Your task to perform on an android device: uninstall "Expedia: Hotels, Flights & Car" Image 0: 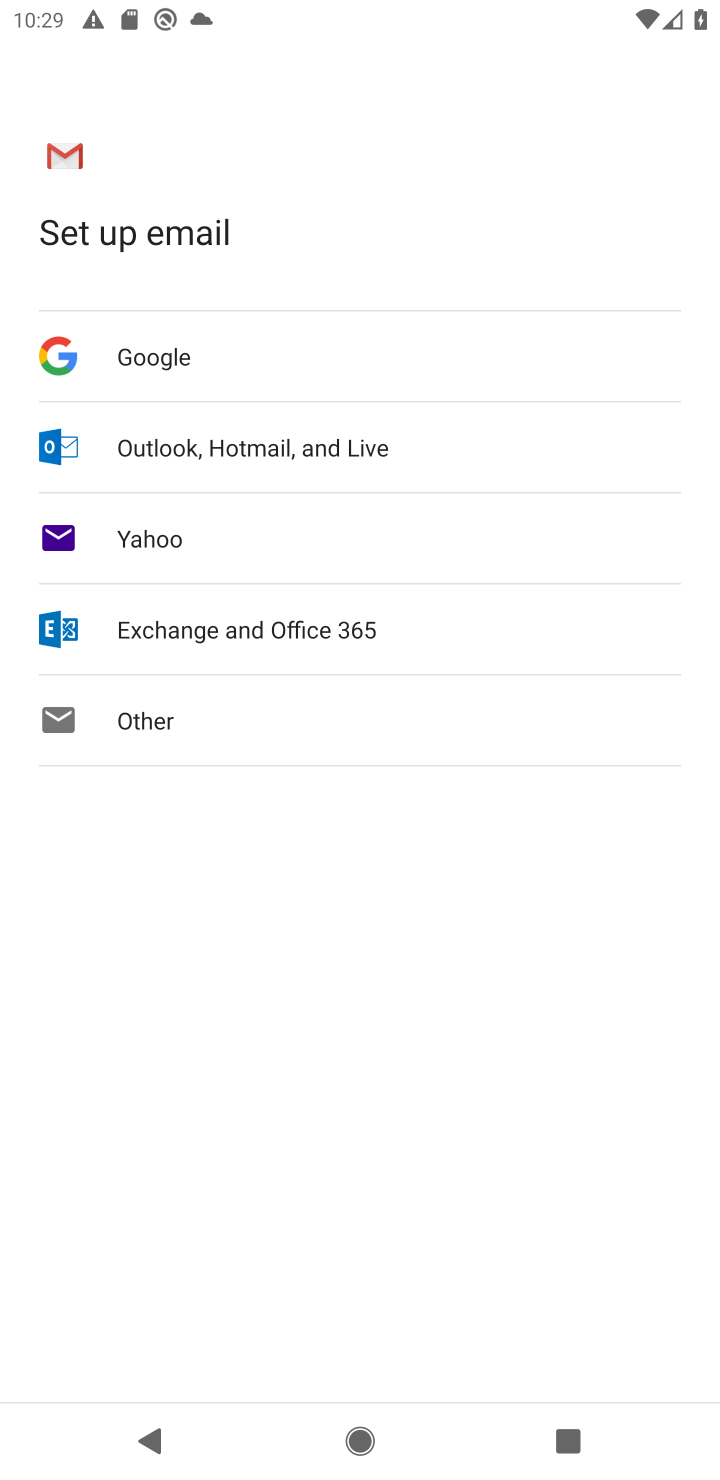
Step 0: press home button
Your task to perform on an android device: uninstall "Expedia: Hotels, Flights & Car" Image 1: 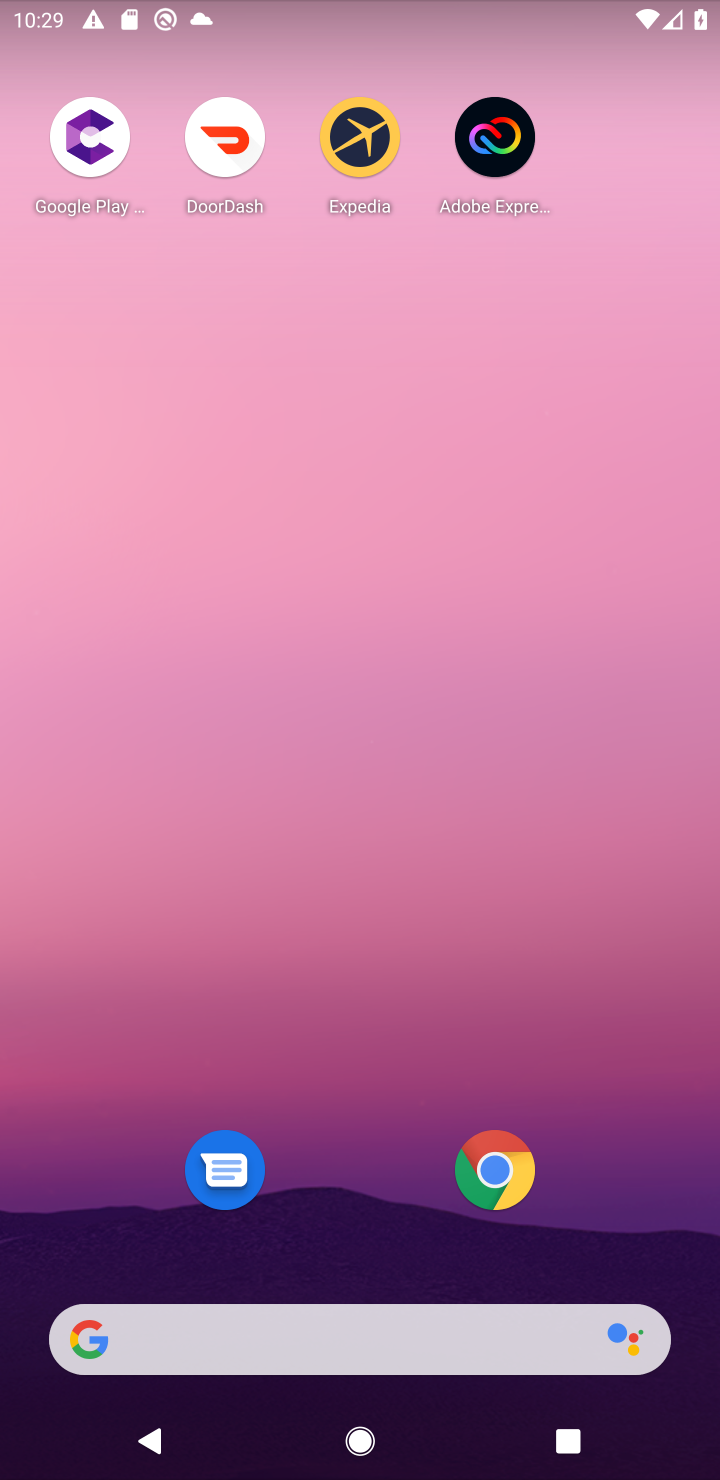
Step 1: drag from (321, 1228) to (379, 1)
Your task to perform on an android device: uninstall "Expedia: Hotels, Flights & Car" Image 2: 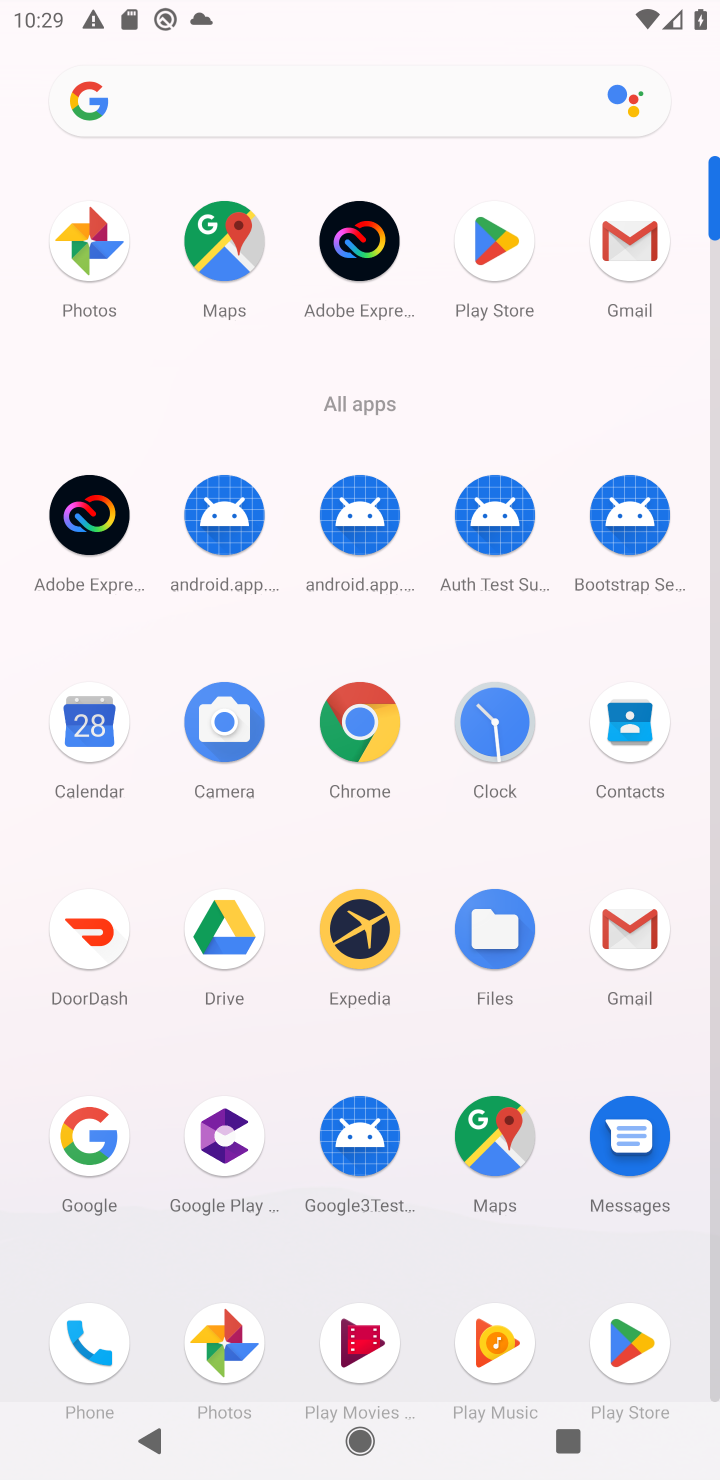
Step 2: click (632, 1329)
Your task to perform on an android device: uninstall "Expedia: Hotels, Flights & Car" Image 3: 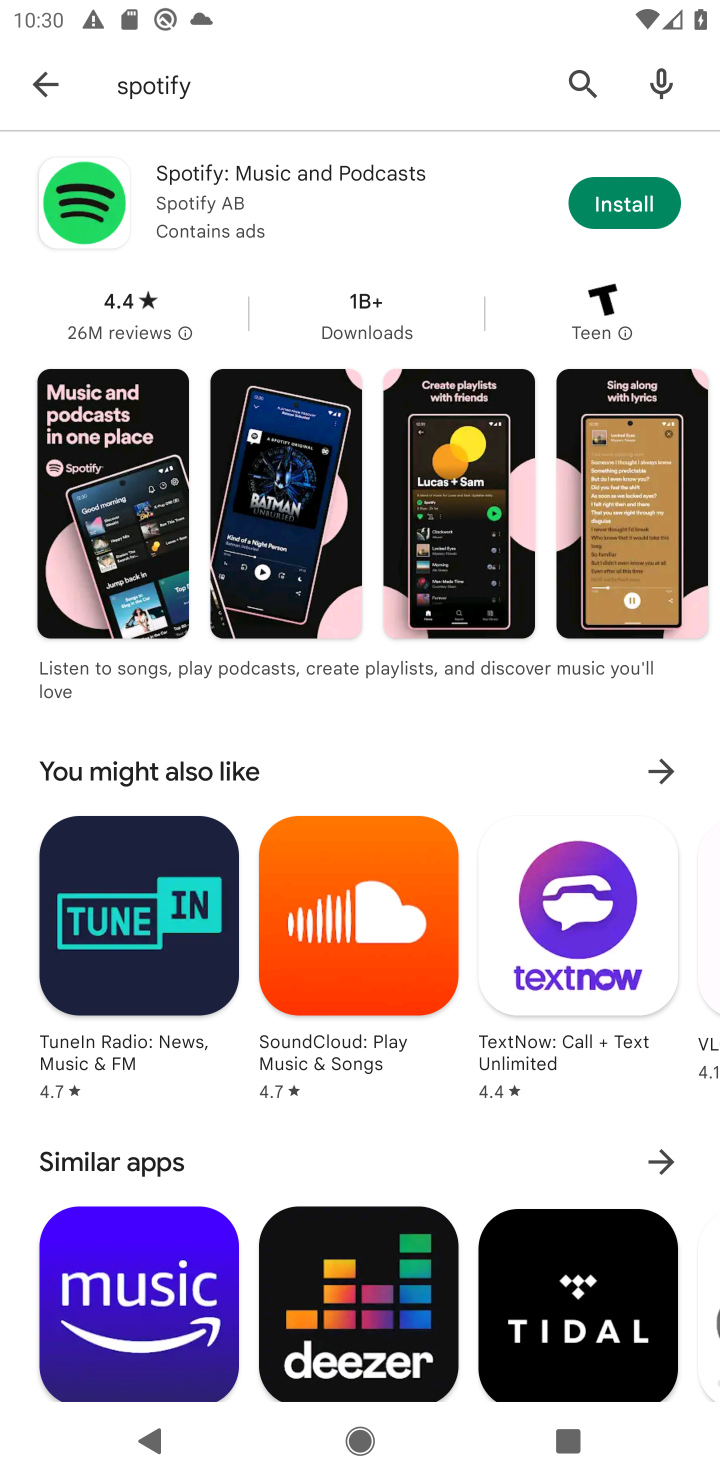
Step 3: click (199, 93)
Your task to perform on an android device: uninstall "Expedia: Hotels, Flights & Car" Image 4: 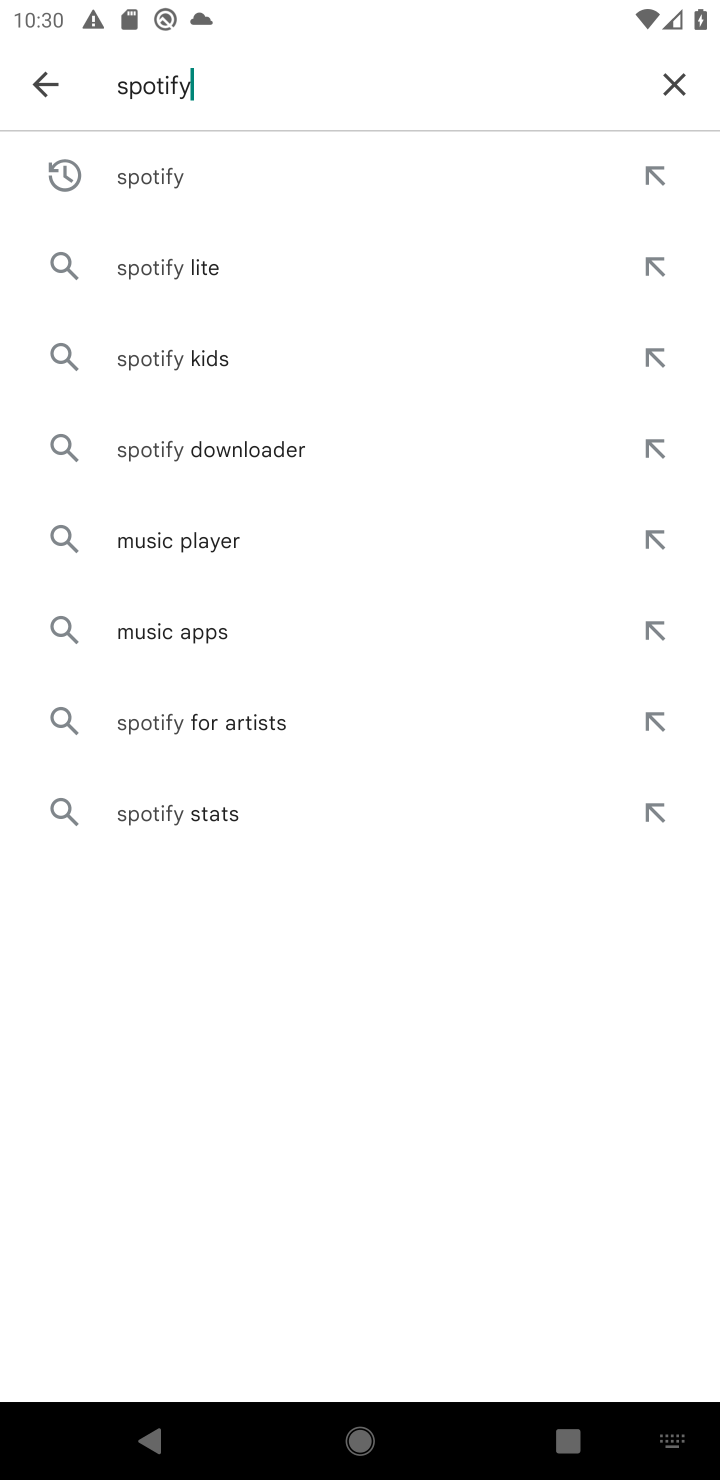
Step 4: click (673, 83)
Your task to perform on an android device: uninstall "Expedia: Hotels, Flights & Car" Image 5: 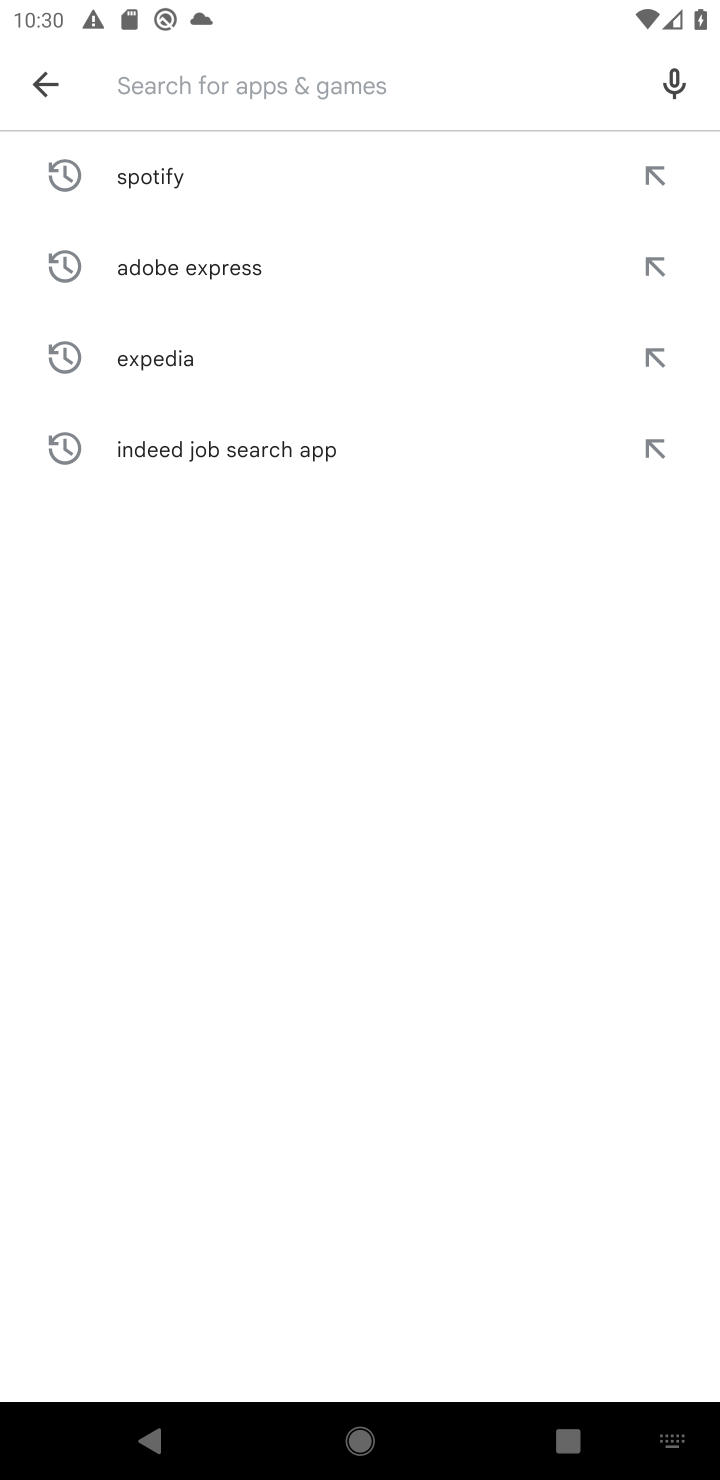
Step 5: type "Expedia"
Your task to perform on an android device: uninstall "Expedia: Hotels, Flights & Car" Image 6: 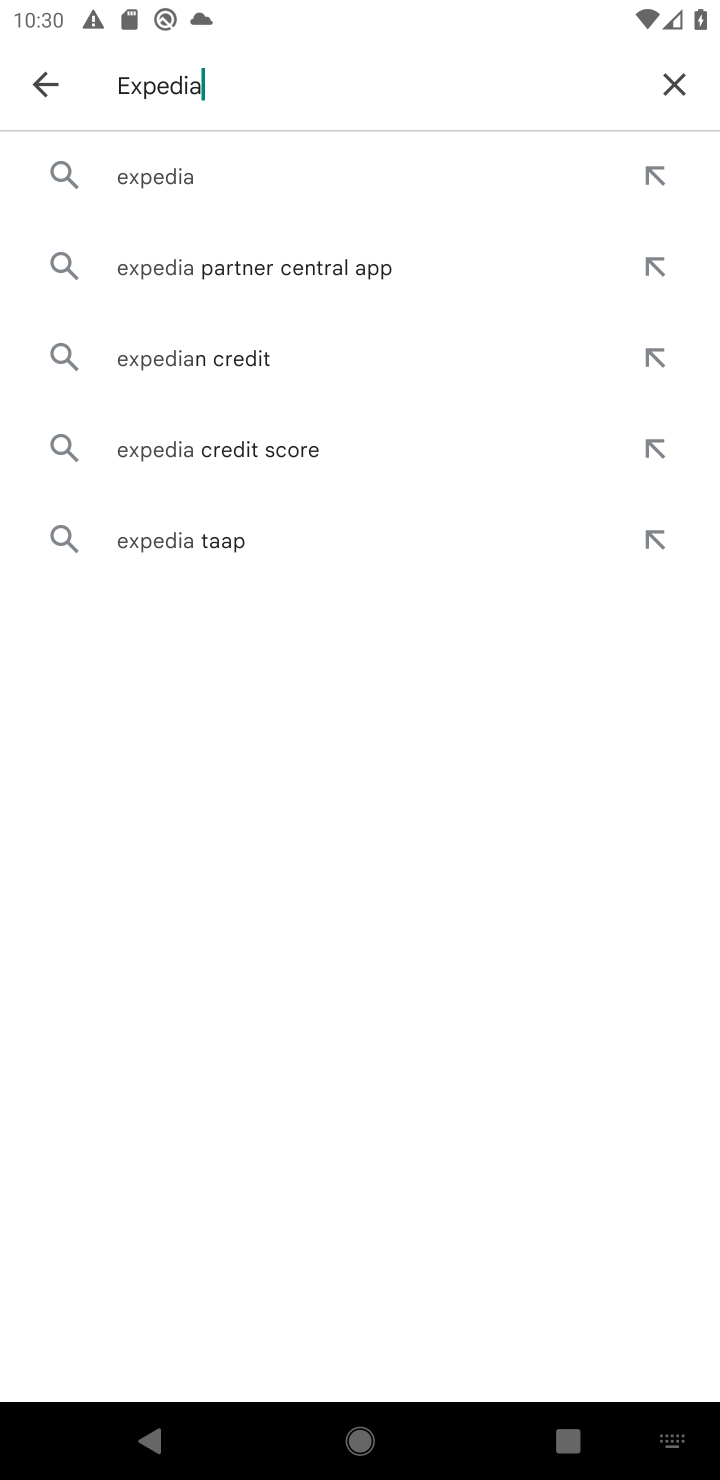
Step 6: click (134, 173)
Your task to perform on an android device: uninstall "Expedia: Hotels, Flights & Car" Image 7: 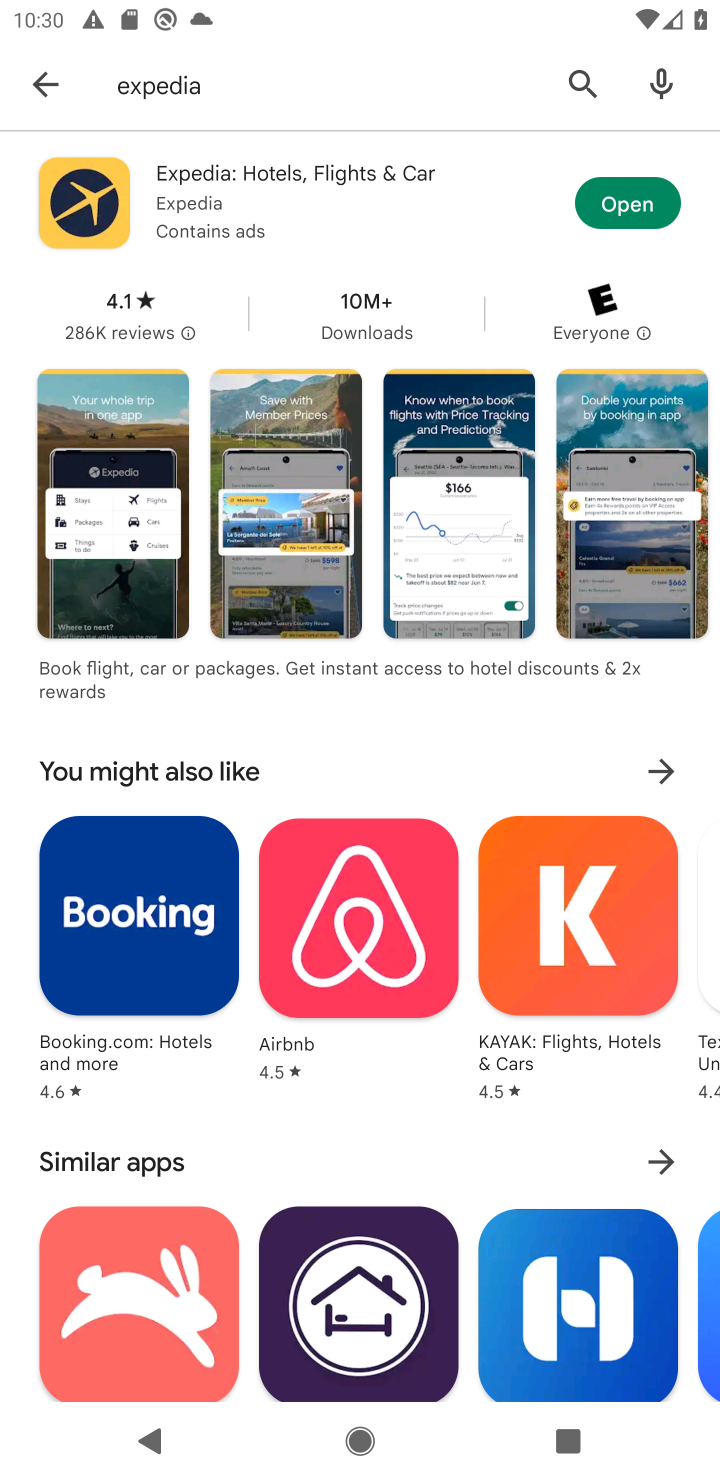
Step 7: click (162, 196)
Your task to perform on an android device: uninstall "Expedia: Hotels, Flights & Car" Image 8: 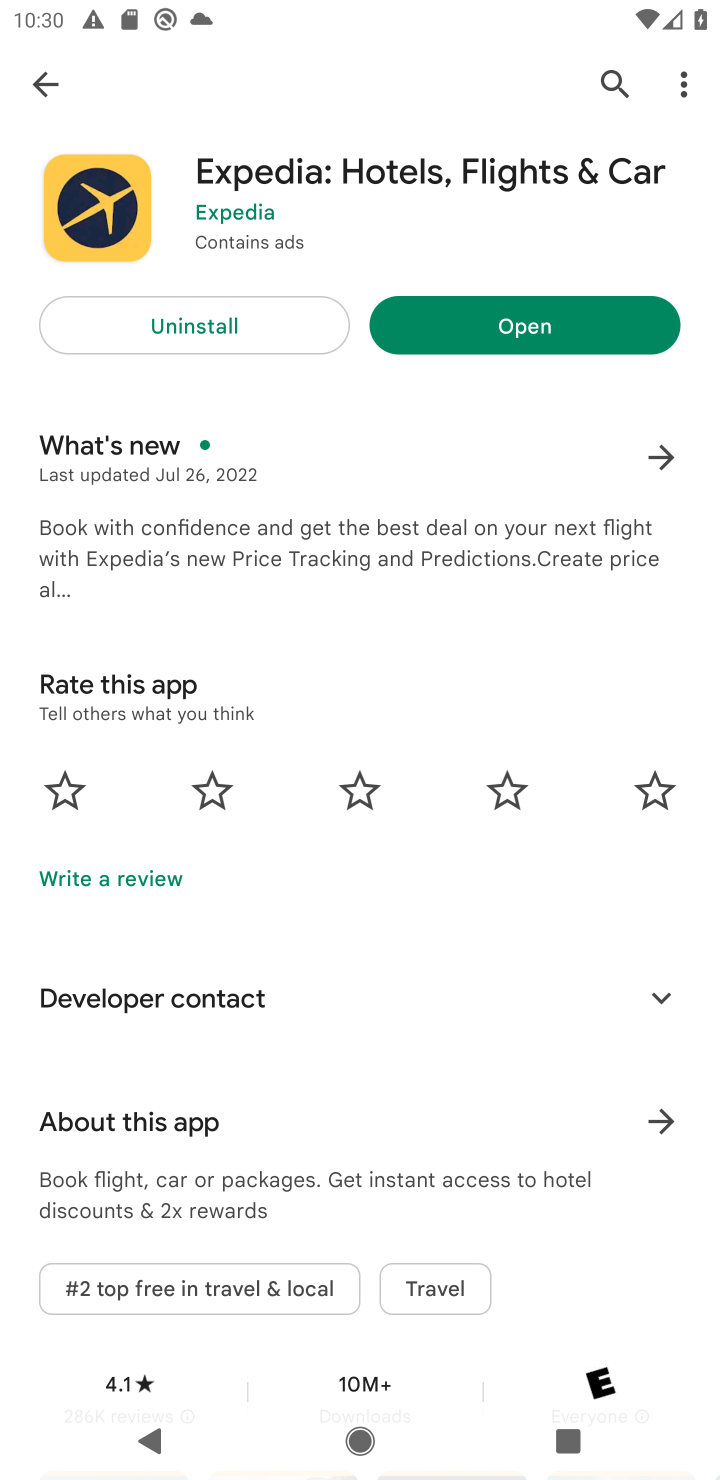
Step 8: click (213, 324)
Your task to perform on an android device: uninstall "Expedia: Hotels, Flights & Car" Image 9: 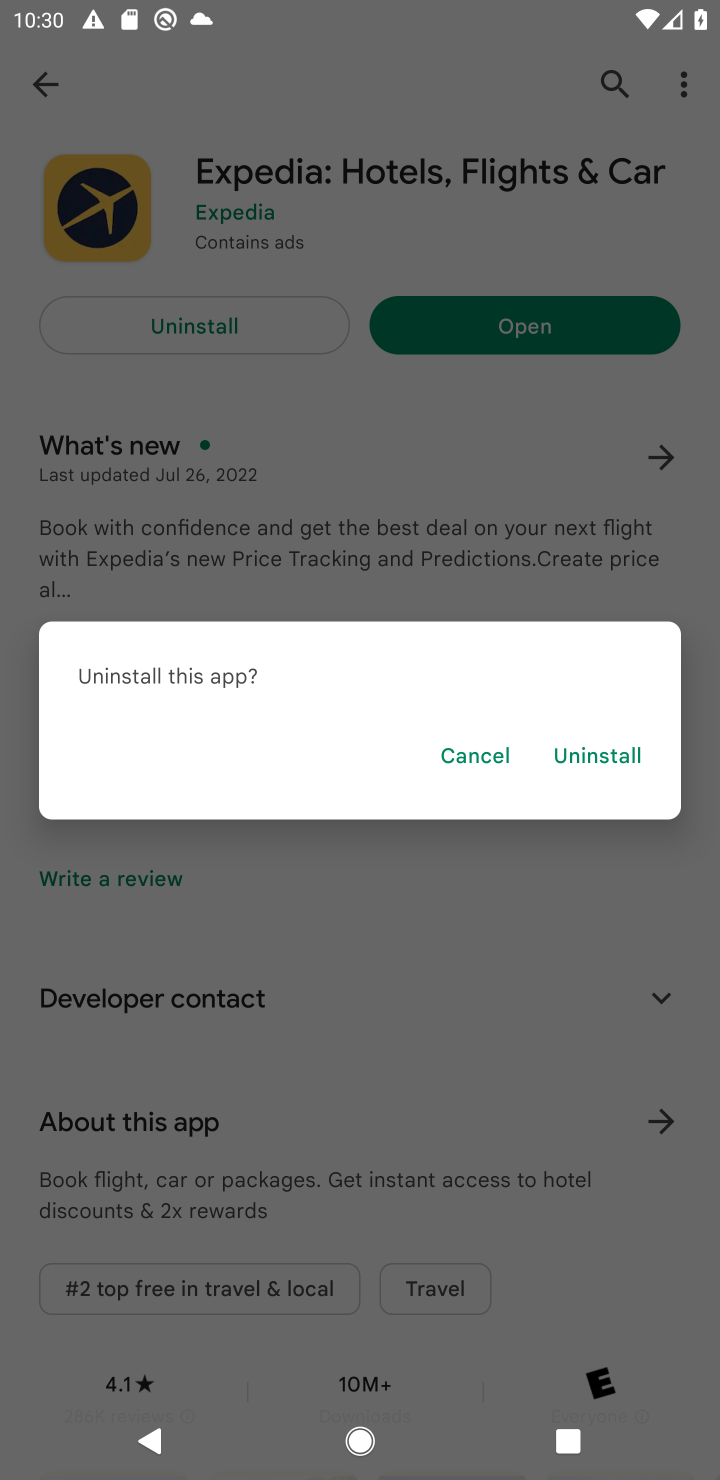
Step 9: click (617, 748)
Your task to perform on an android device: uninstall "Expedia: Hotels, Flights & Car" Image 10: 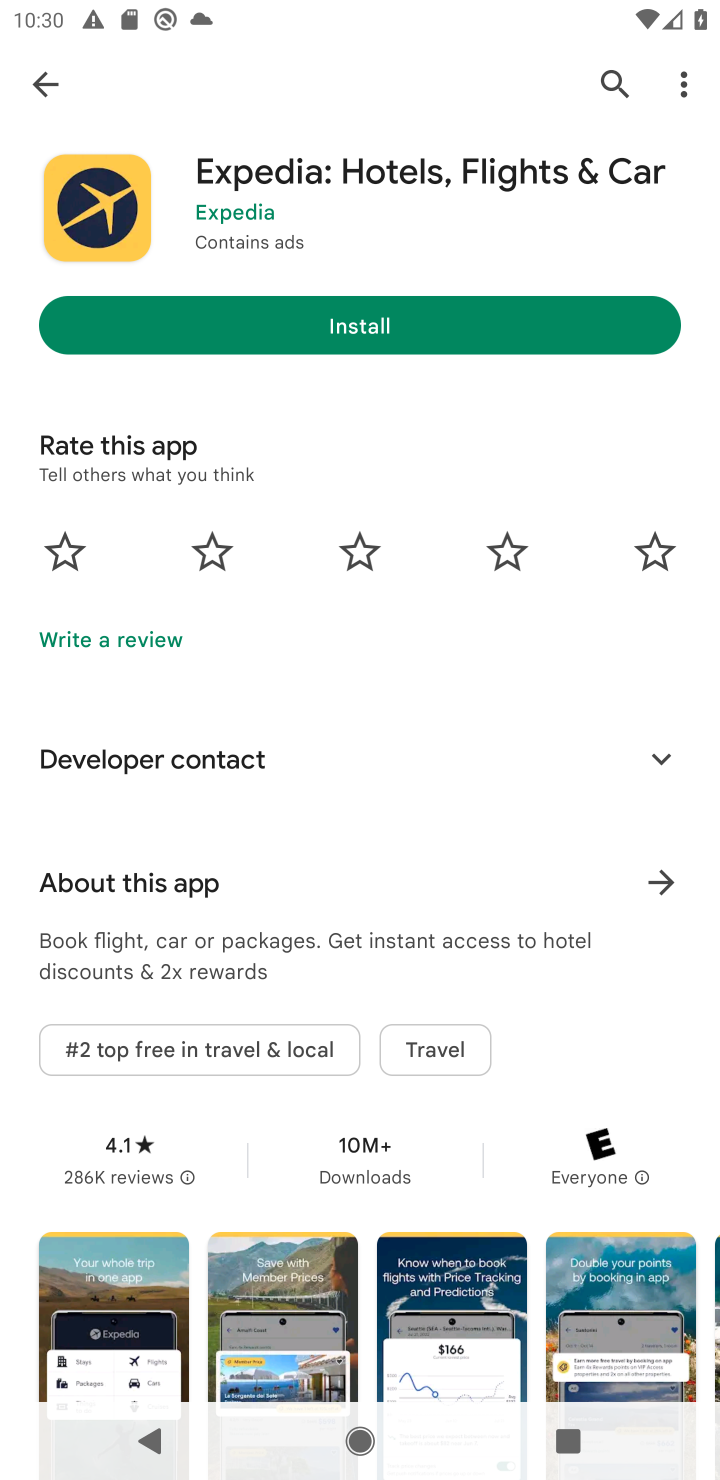
Step 10: task complete